Your task to perform on an android device: Add "usb-b" to the cart on walmart.com, then select checkout. Image 0: 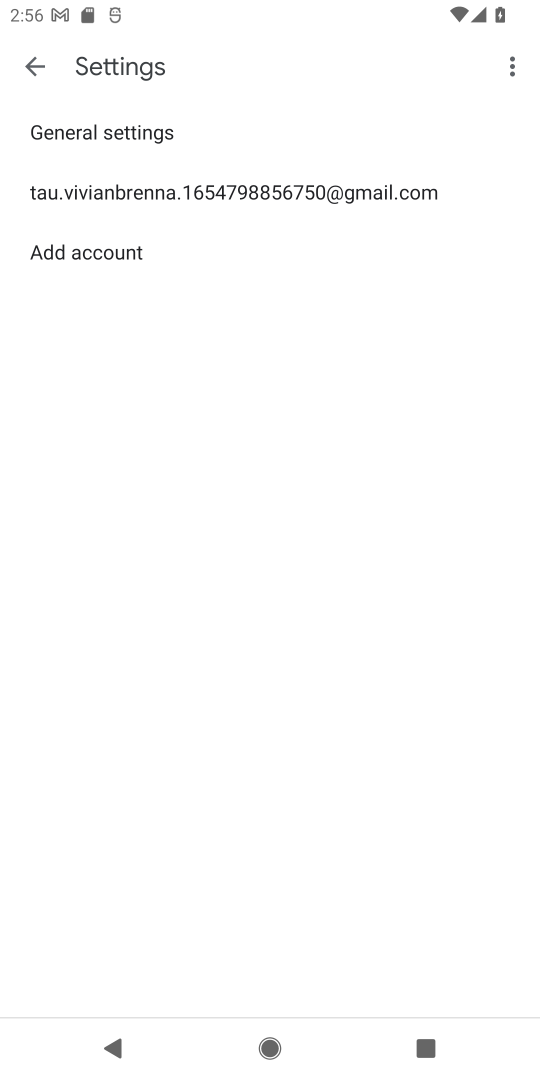
Step 0: press home button
Your task to perform on an android device: Add "usb-b" to the cart on walmart.com, then select checkout. Image 1: 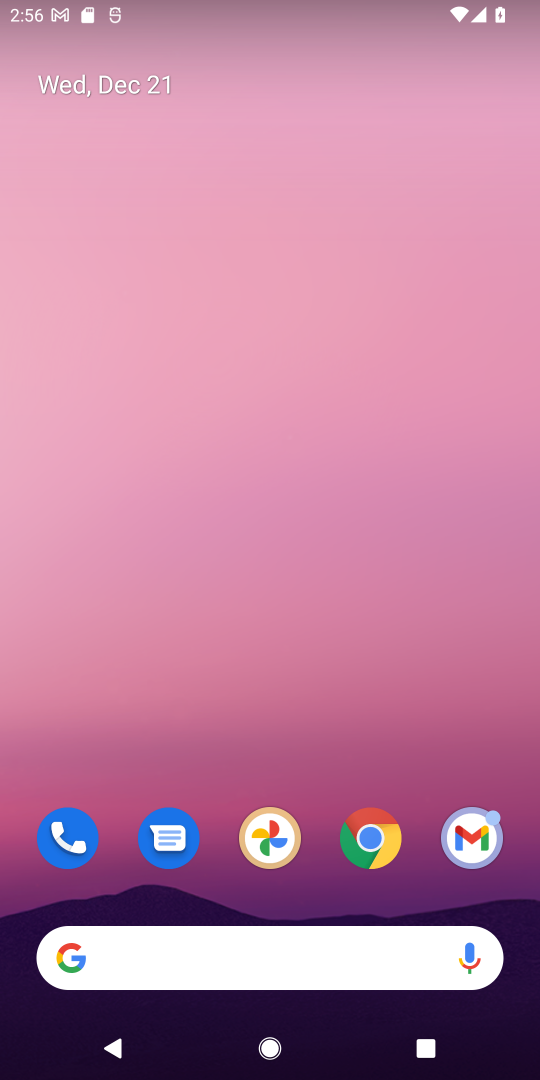
Step 1: click (383, 840)
Your task to perform on an android device: Add "usb-b" to the cart on walmart.com, then select checkout. Image 2: 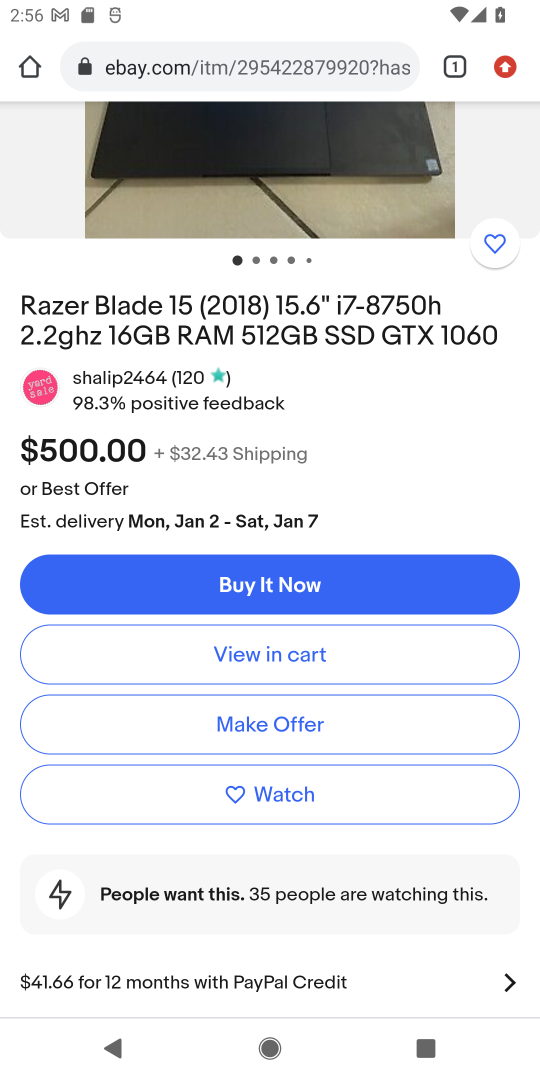
Step 2: click (301, 66)
Your task to perform on an android device: Add "usb-b" to the cart on walmart.com, then select checkout. Image 3: 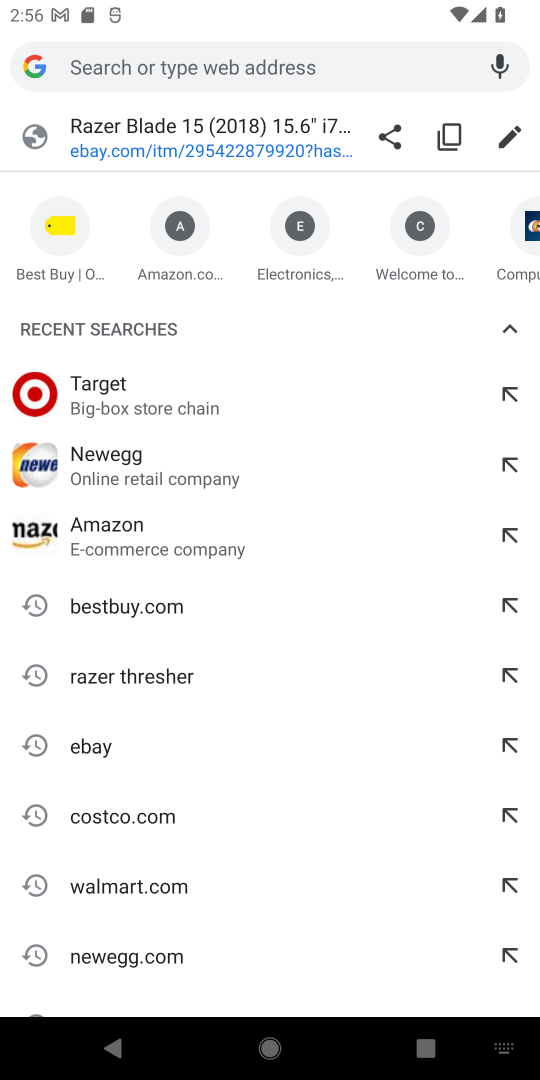
Step 3: type "walmart"
Your task to perform on an android device: Add "usb-b" to the cart on walmart.com, then select checkout. Image 4: 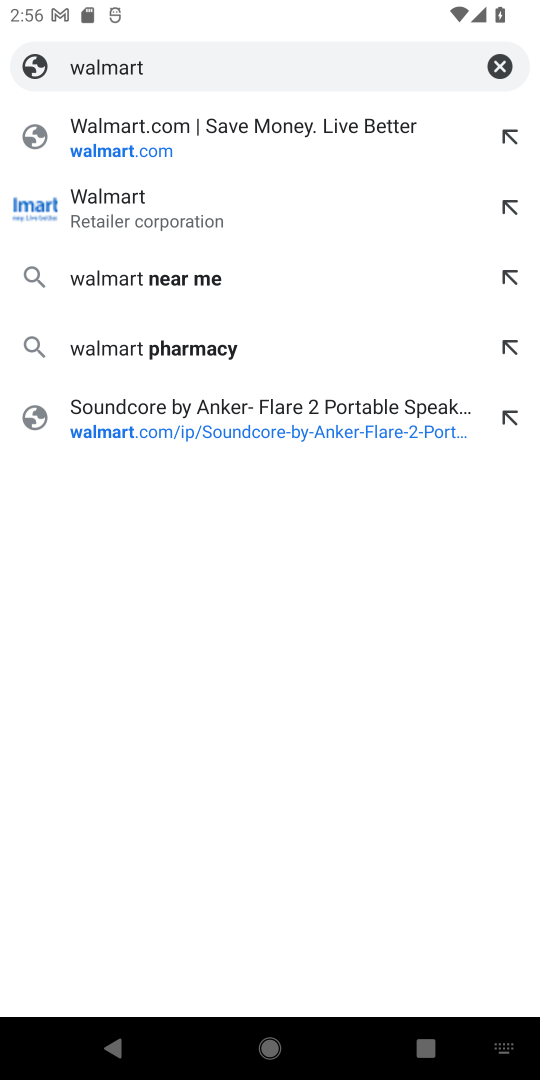
Step 4: click (199, 116)
Your task to perform on an android device: Add "usb-b" to the cart on walmart.com, then select checkout. Image 5: 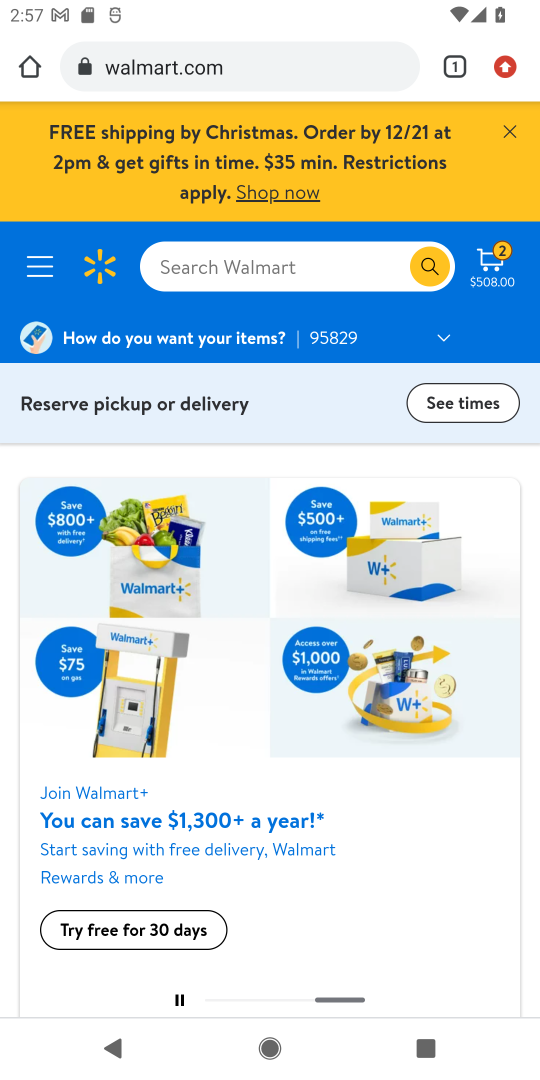
Step 5: click (513, 138)
Your task to perform on an android device: Add "usb-b" to the cart on walmart.com, then select checkout. Image 6: 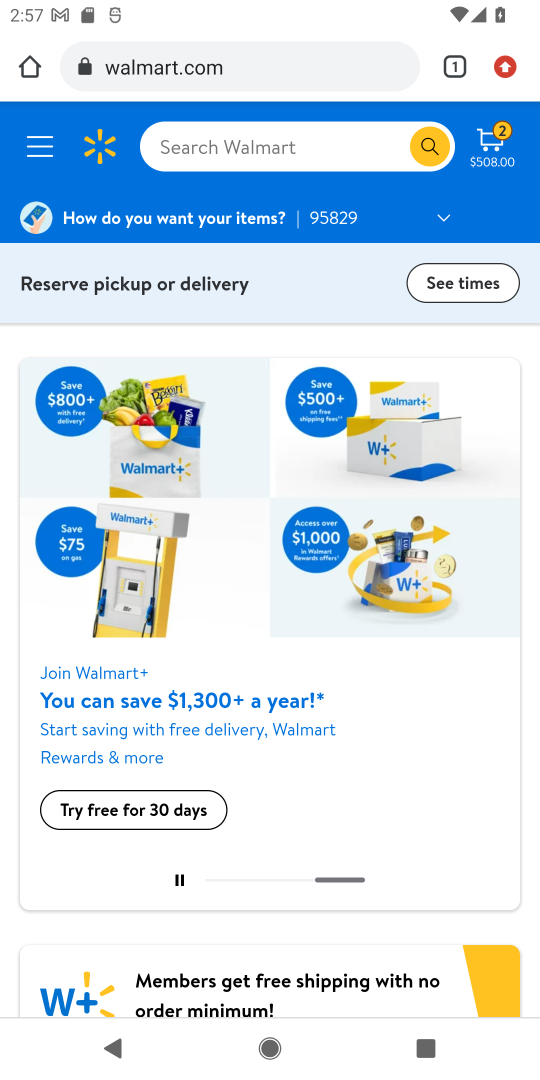
Step 6: click (229, 152)
Your task to perform on an android device: Add "usb-b" to the cart on walmart.com, then select checkout. Image 7: 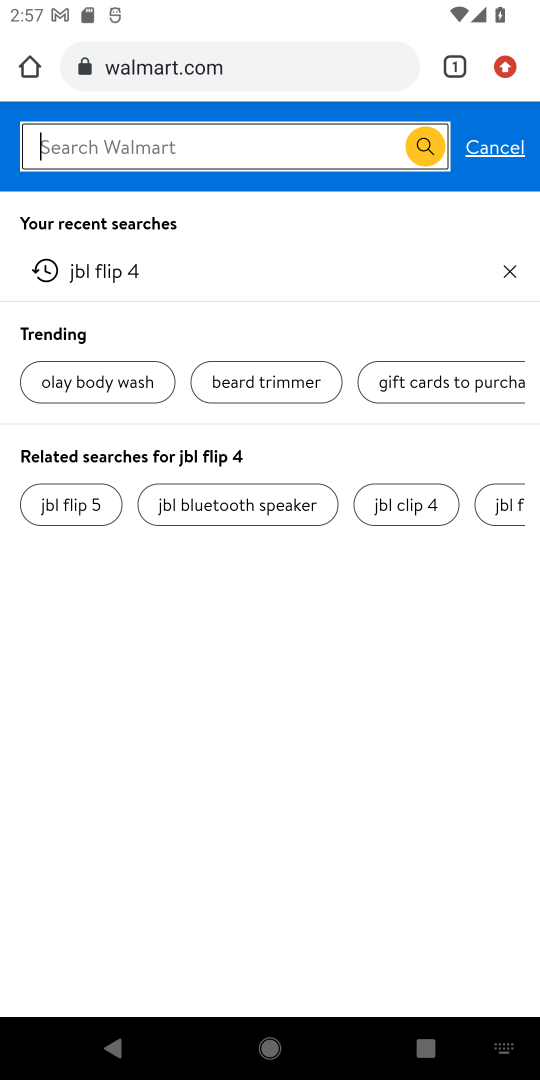
Step 7: type "usb-b"
Your task to perform on an android device: Add "usb-b" to the cart on walmart.com, then select checkout. Image 8: 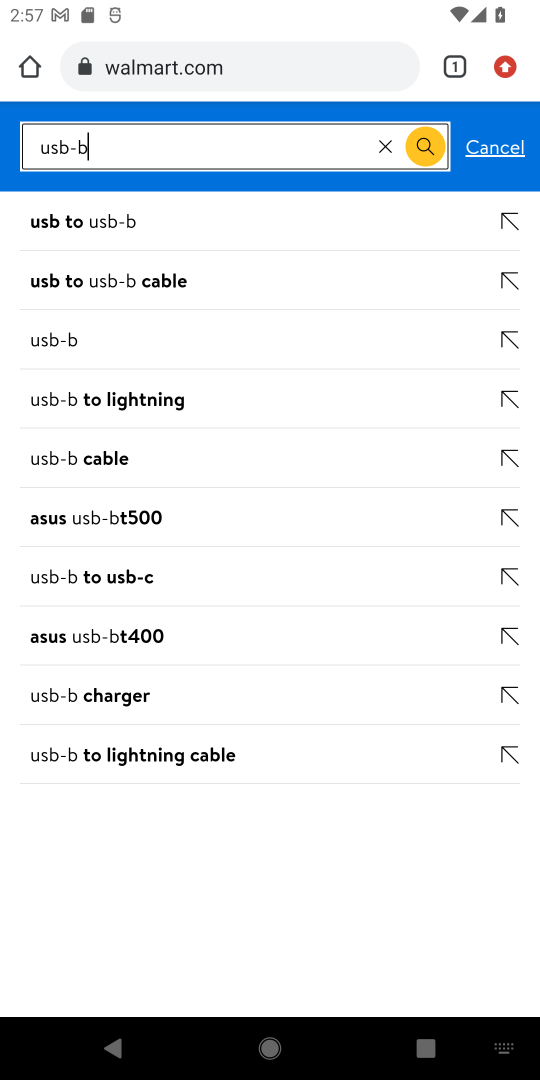
Step 8: click (423, 151)
Your task to perform on an android device: Add "usb-b" to the cart on walmart.com, then select checkout. Image 9: 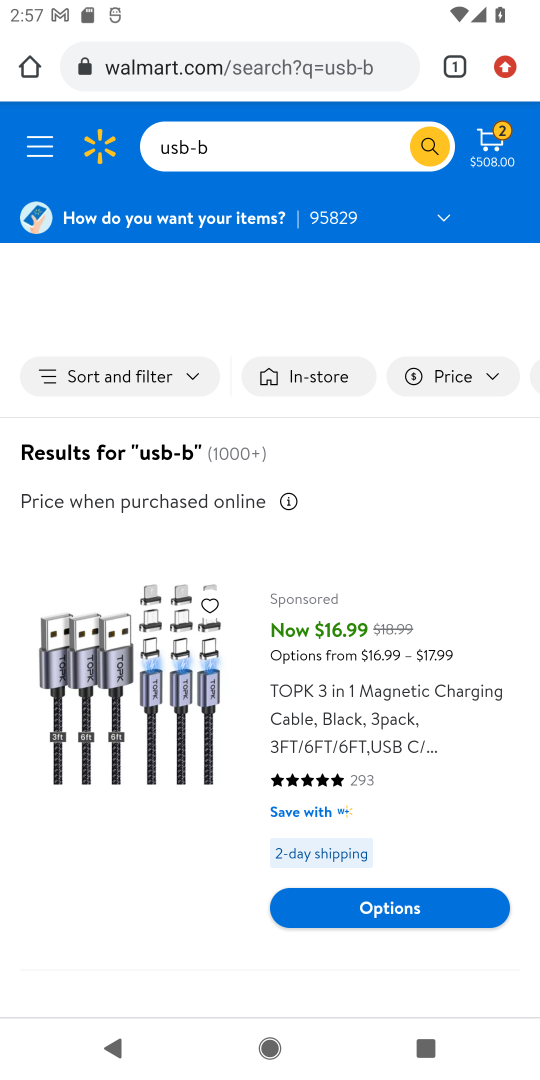
Step 9: click (382, 903)
Your task to perform on an android device: Add "usb-b" to the cart on walmart.com, then select checkout. Image 10: 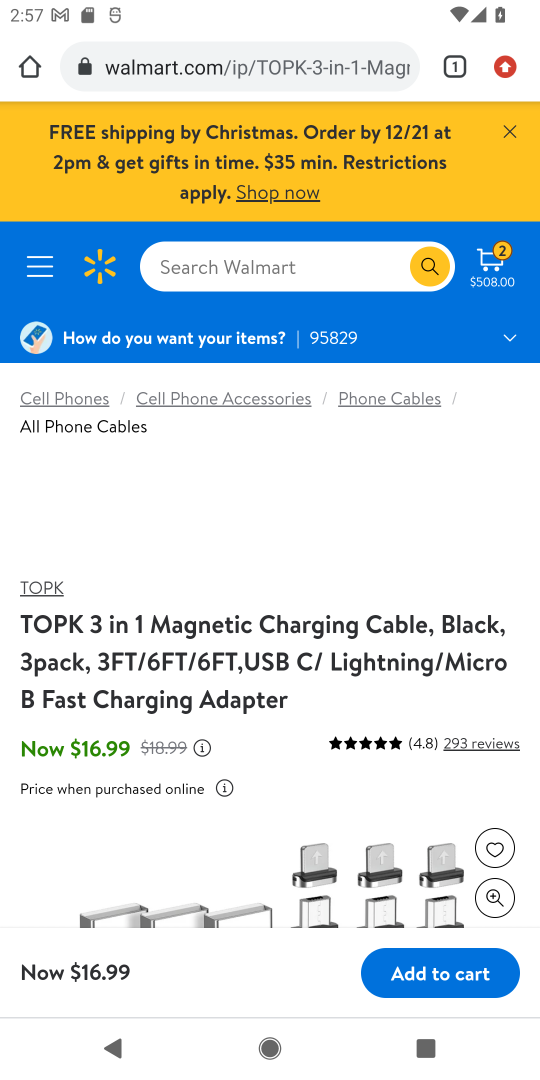
Step 10: click (432, 966)
Your task to perform on an android device: Add "usb-b" to the cart on walmart.com, then select checkout. Image 11: 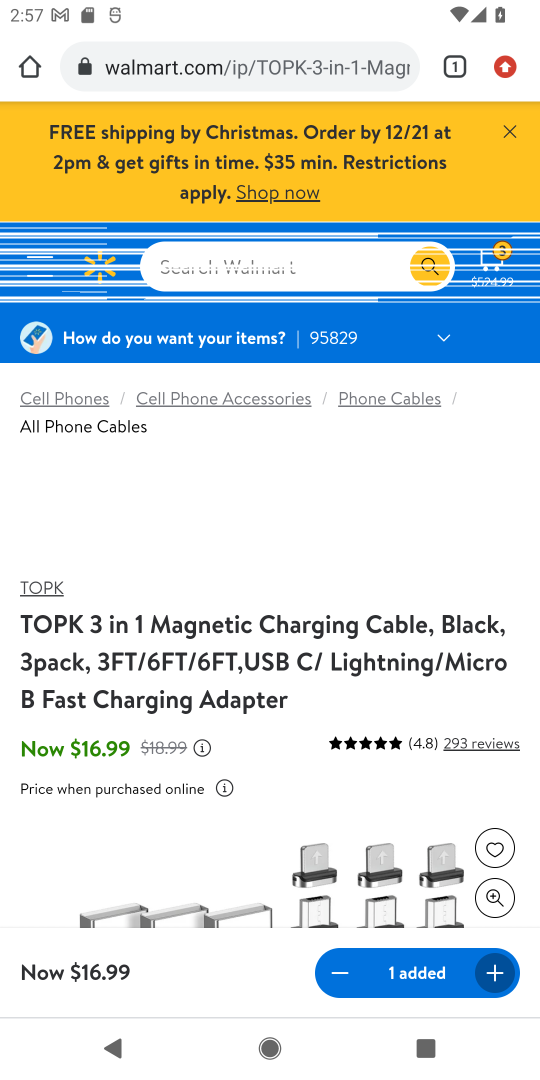
Step 11: task complete